Your task to perform on an android device: see tabs open on other devices in the chrome app Image 0: 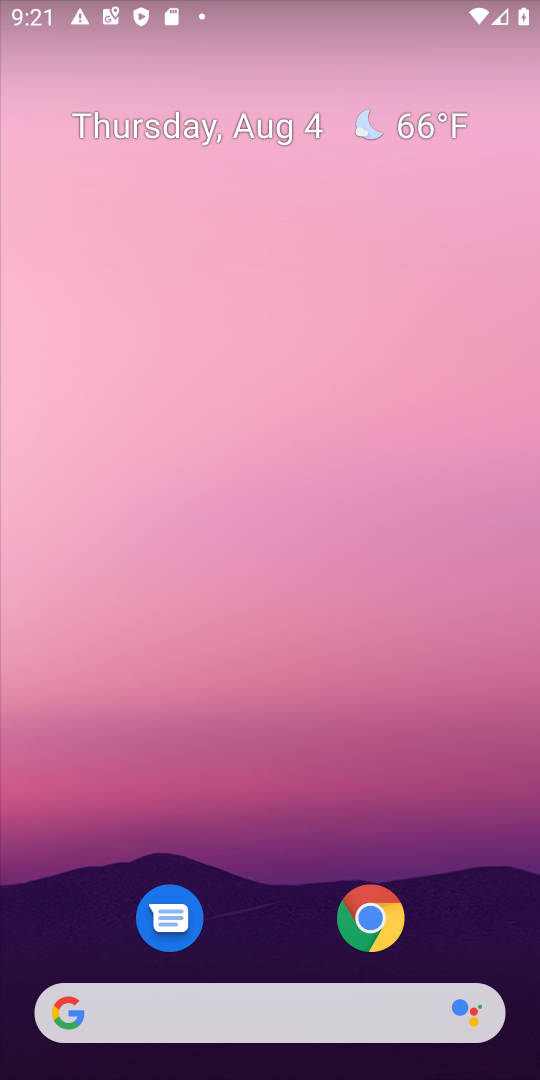
Step 0: press home button
Your task to perform on an android device: see tabs open on other devices in the chrome app Image 1: 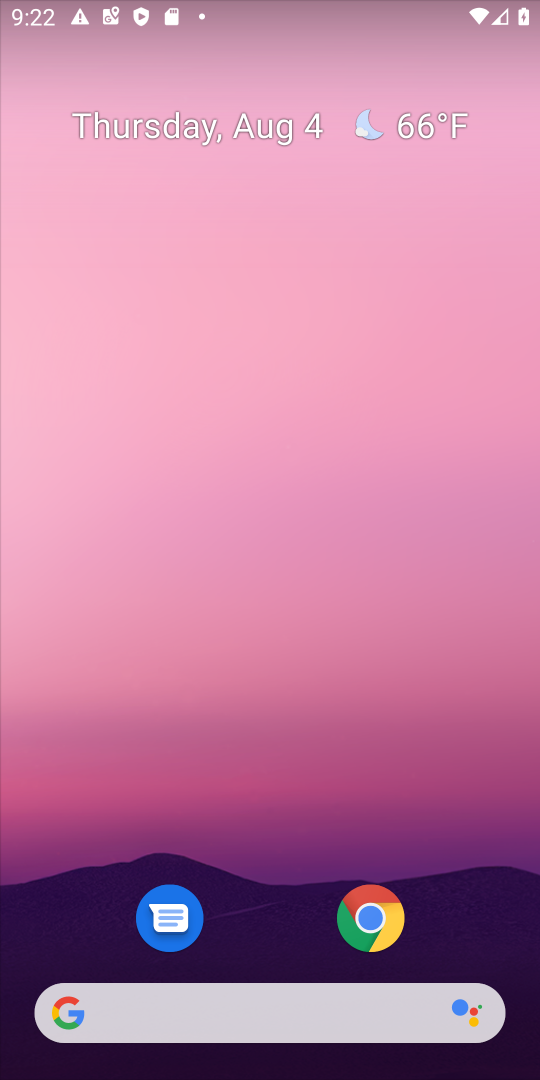
Step 1: click (369, 917)
Your task to perform on an android device: see tabs open on other devices in the chrome app Image 2: 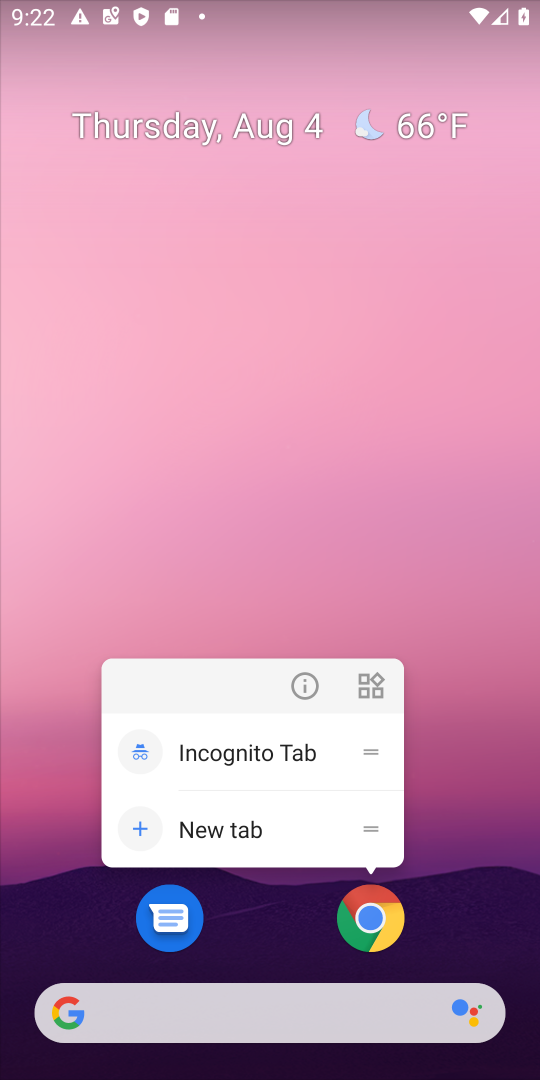
Step 2: click (447, 952)
Your task to perform on an android device: see tabs open on other devices in the chrome app Image 3: 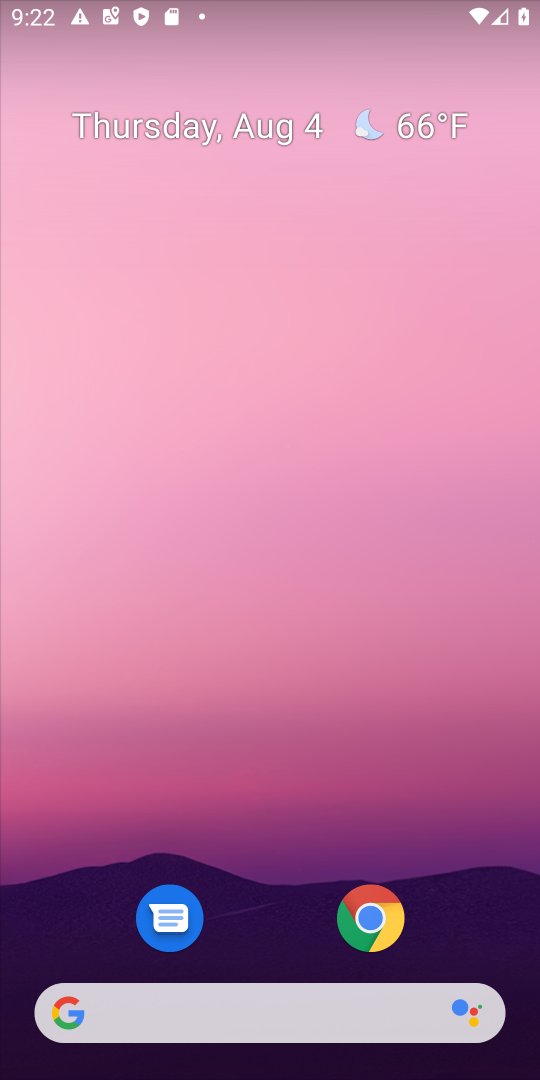
Step 3: drag from (459, 948) to (449, 295)
Your task to perform on an android device: see tabs open on other devices in the chrome app Image 4: 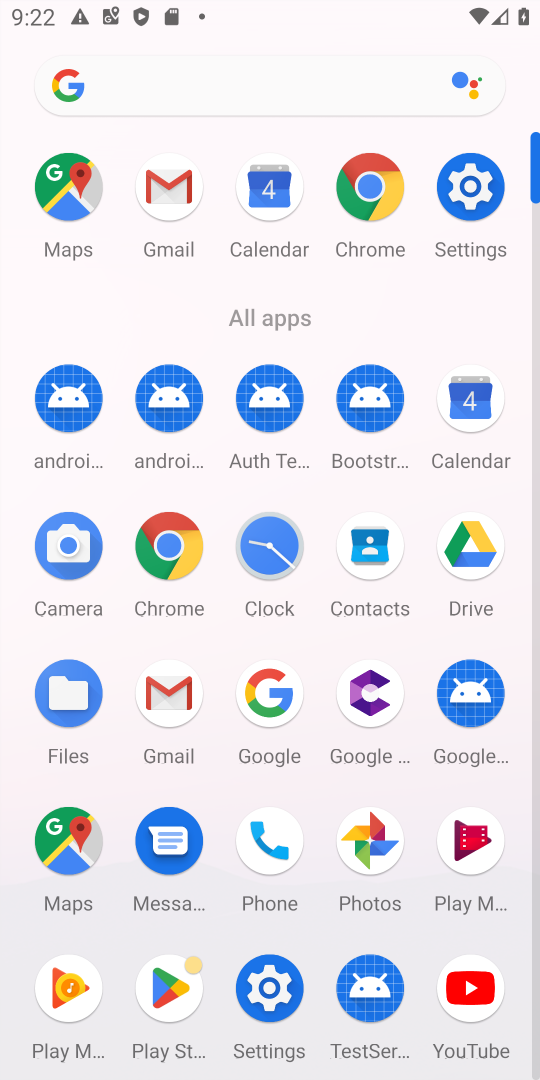
Step 4: click (167, 539)
Your task to perform on an android device: see tabs open on other devices in the chrome app Image 5: 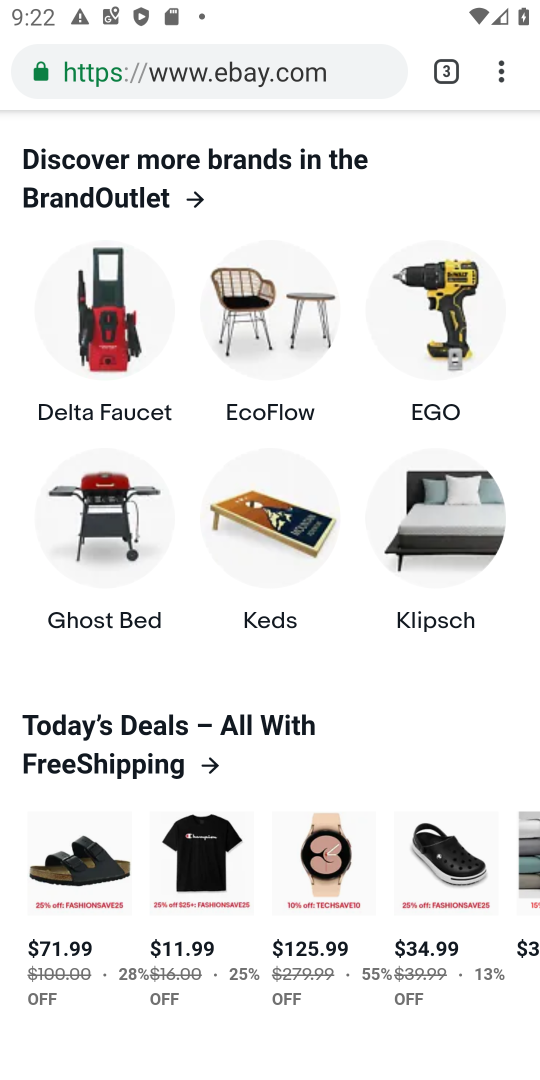
Step 5: click (507, 65)
Your task to perform on an android device: see tabs open on other devices in the chrome app Image 6: 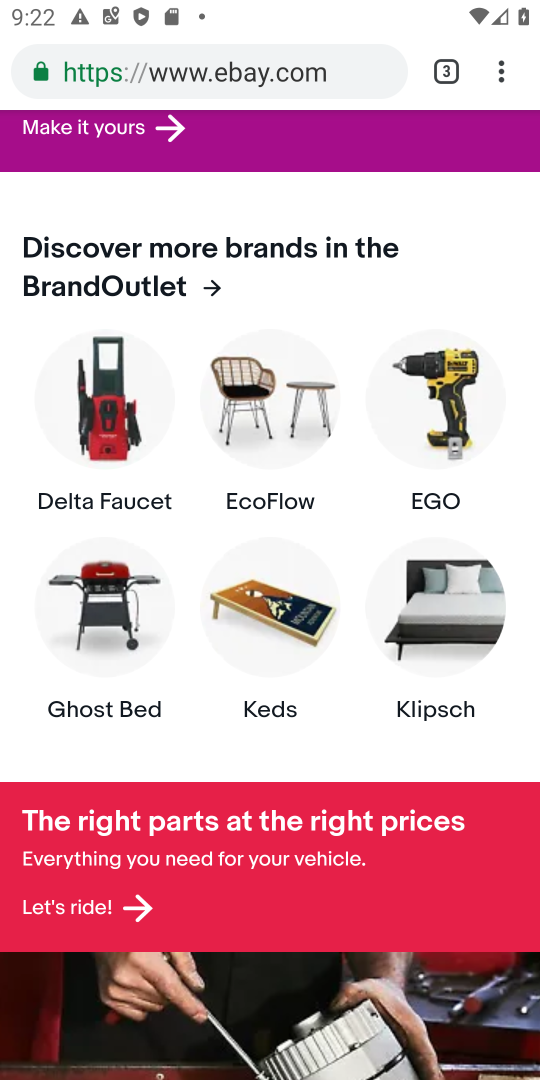
Step 6: click (508, 64)
Your task to perform on an android device: see tabs open on other devices in the chrome app Image 7: 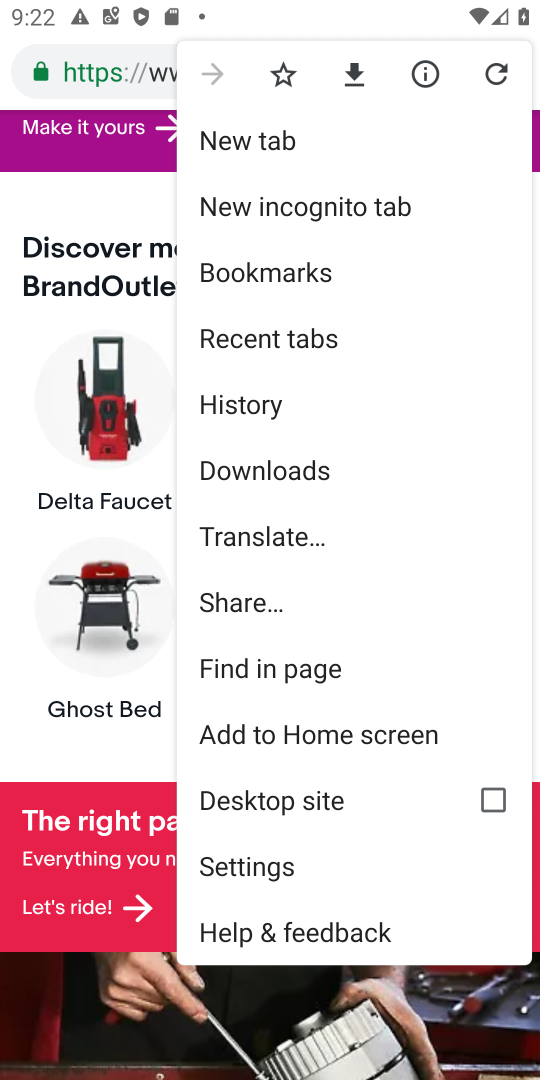
Step 7: click (350, 336)
Your task to perform on an android device: see tabs open on other devices in the chrome app Image 8: 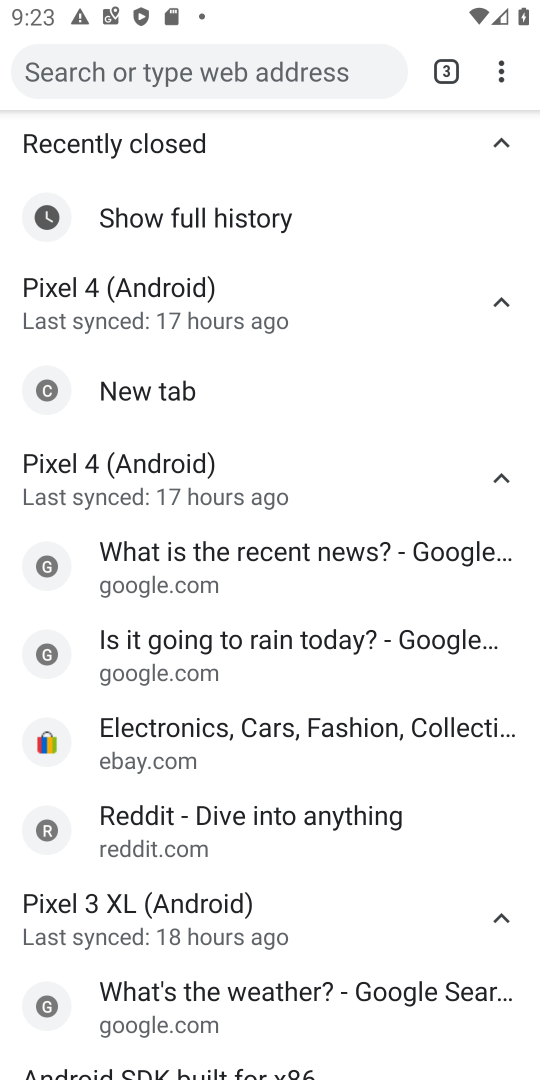
Step 8: task complete